Your task to perform on an android device: Do I have any events tomorrow? Image 0: 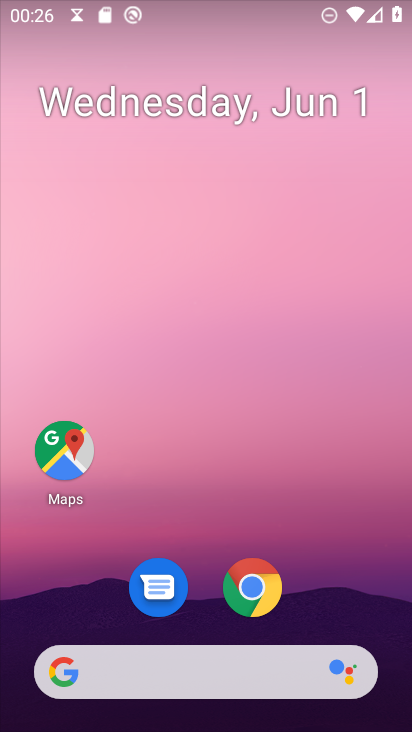
Step 0: drag from (316, 590) to (265, 5)
Your task to perform on an android device: Do I have any events tomorrow? Image 1: 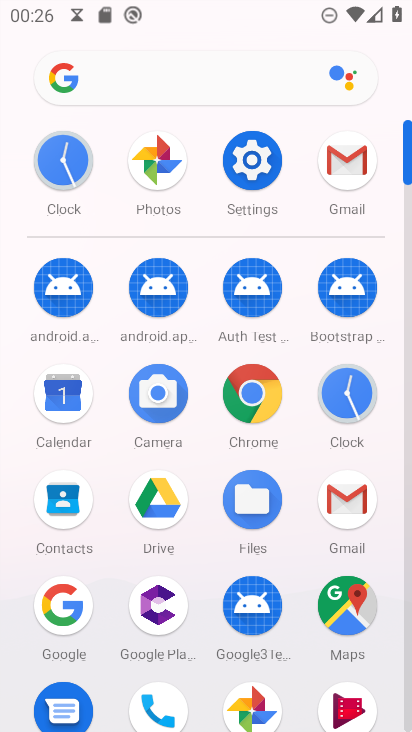
Step 1: click (70, 391)
Your task to perform on an android device: Do I have any events tomorrow? Image 2: 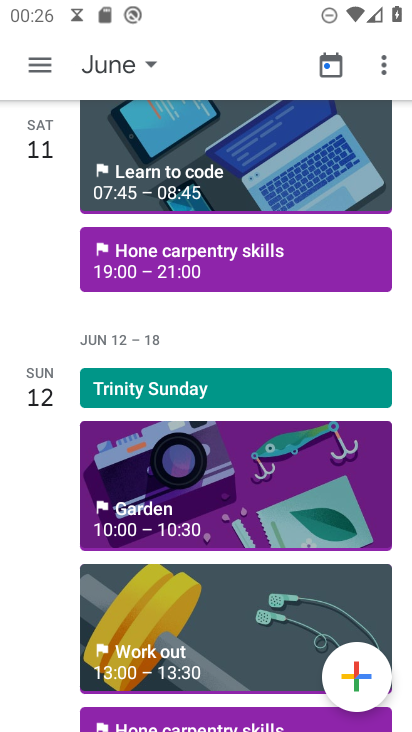
Step 2: click (121, 64)
Your task to perform on an android device: Do I have any events tomorrow? Image 3: 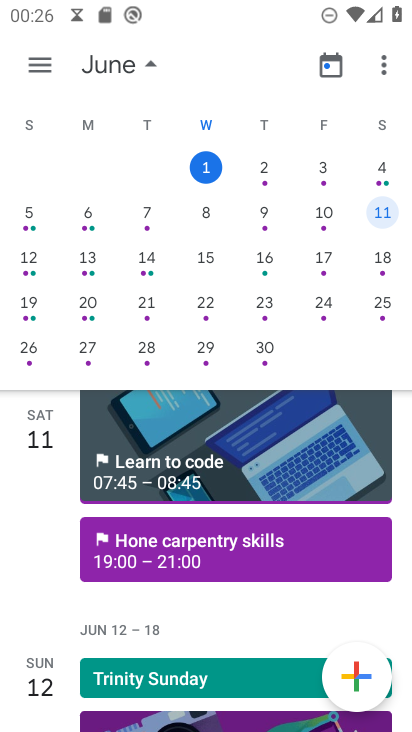
Step 3: drag from (95, 259) to (367, 327)
Your task to perform on an android device: Do I have any events tomorrow? Image 4: 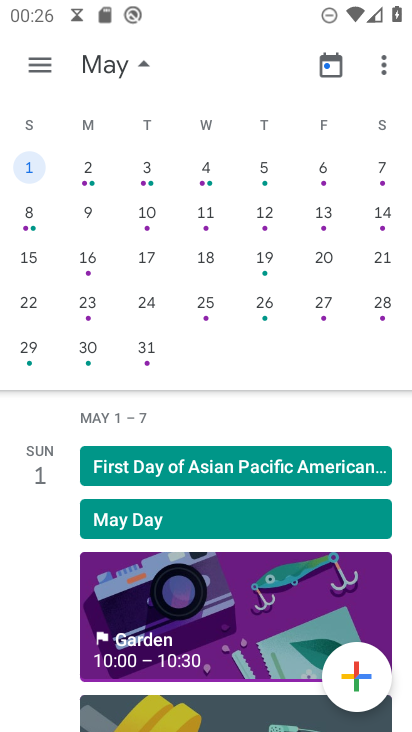
Step 4: drag from (335, 315) to (30, 283)
Your task to perform on an android device: Do I have any events tomorrow? Image 5: 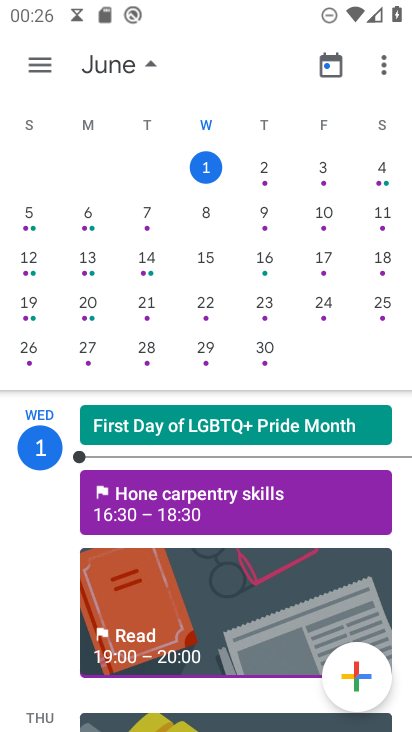
Step 5: click (266, 161)
Your task to perform on an android device: Do I have any events tomorrow? Image 6: 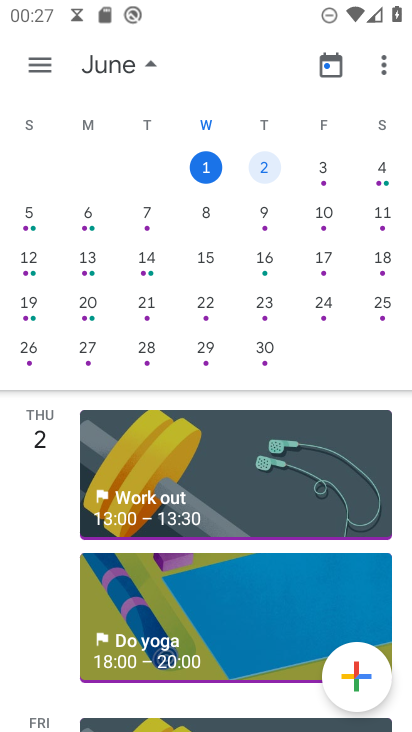
Step 6: task complete